Your task to perform on an android device: Set the phone to "Do not disturb". Image 0: 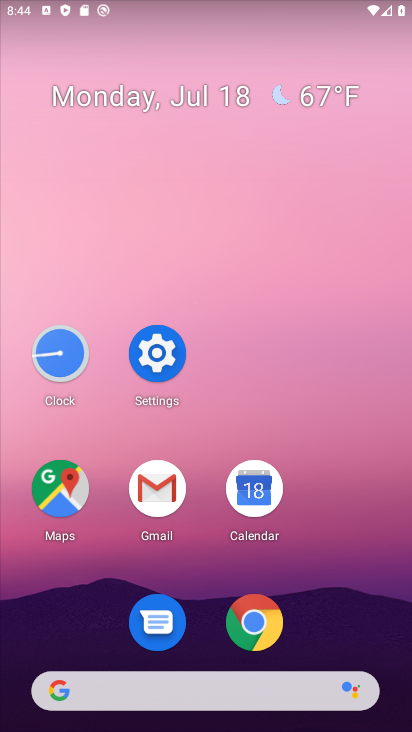
Step 0: click (153, 346)
Your task to perform on an android device: Set the phone to "Do not disturb". Image 1: 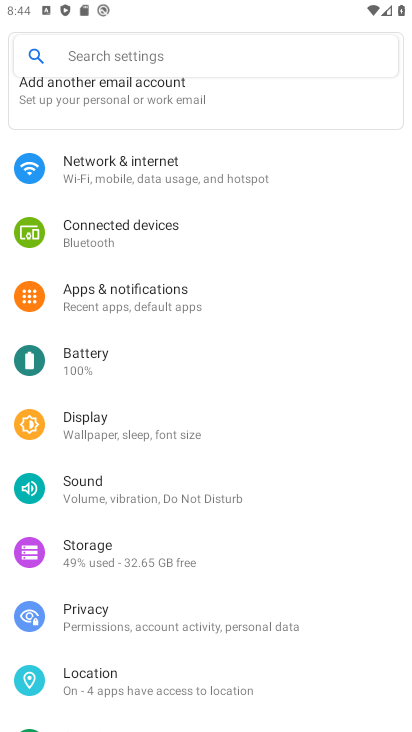
Step 1: click (78, 481)
Your task to perform on an android device: Set the phone to "Do not disturb". Image 2: 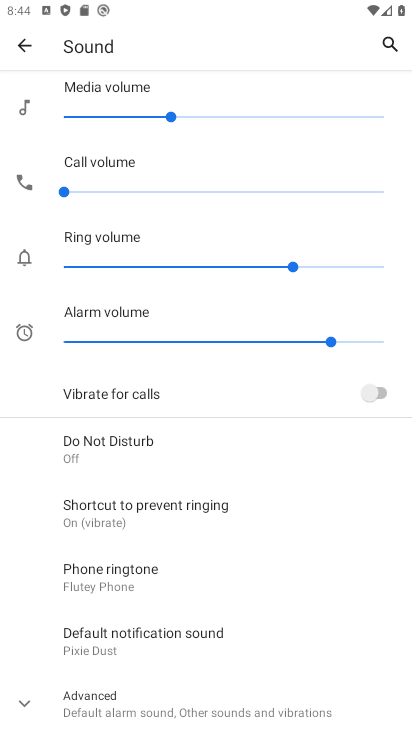
Step 2: click (94, 449)
Your task to perform on an android device: Set the phone to "Do not disturb". Image 3: 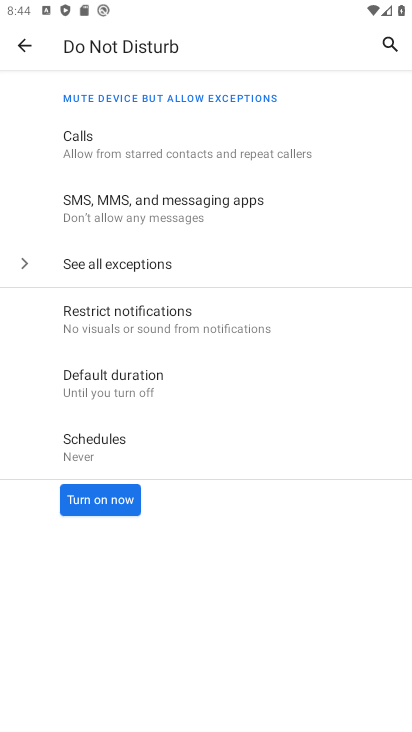
Step 3: click (106, 496)
Your task to perform on an android device: Set the phone to "Do not disturb". Image 4: 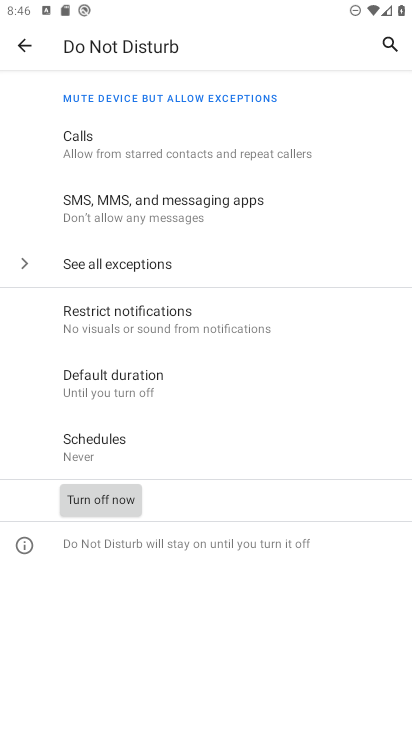
Step 4: task complete